Your task to perform on an android device: Clear the shopping cart on target.com. Add bose soundlink mini to the cart on target.com Image 0: 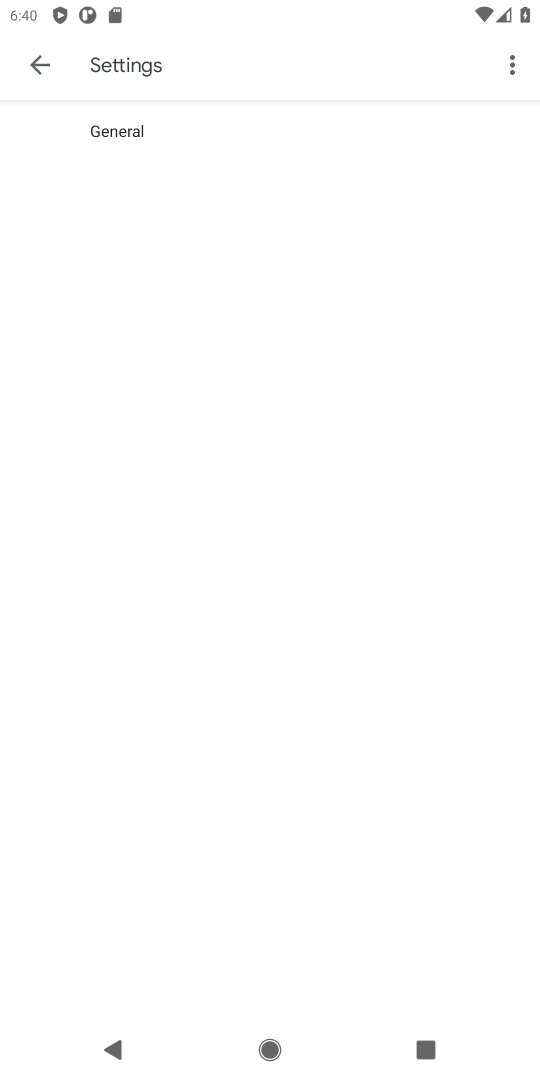
Step 0: press home button
Your task to perform on an android device: Clear the shopping cart on target.com. Add bose soundlink mini to the cart on target.com Image 1: 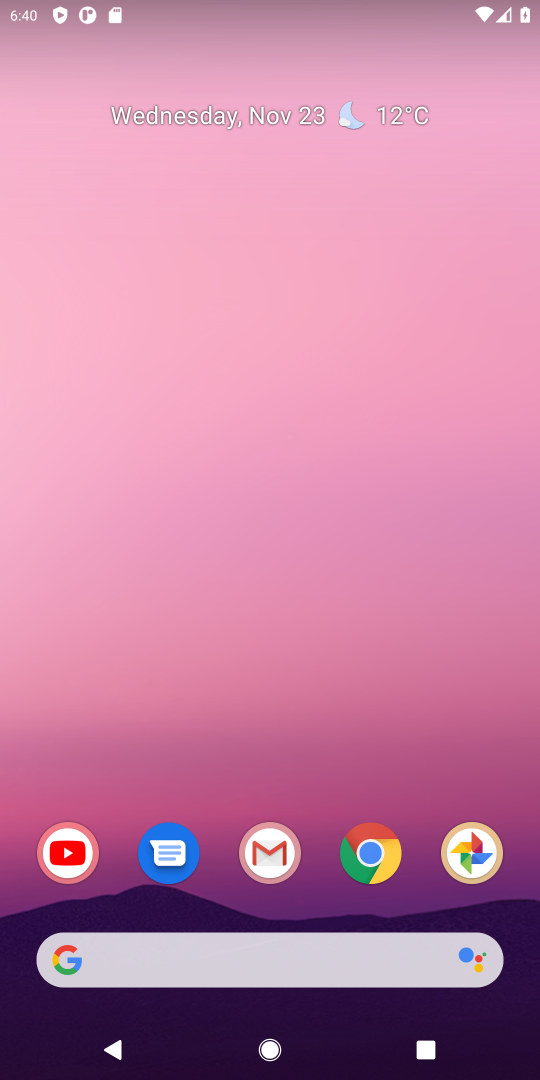
Step 1: click (366, 869)
Your task to perform on an android device: Clear the shopping cart on target.com. Add bose soundlink mini to the cart on target.com Image 2: 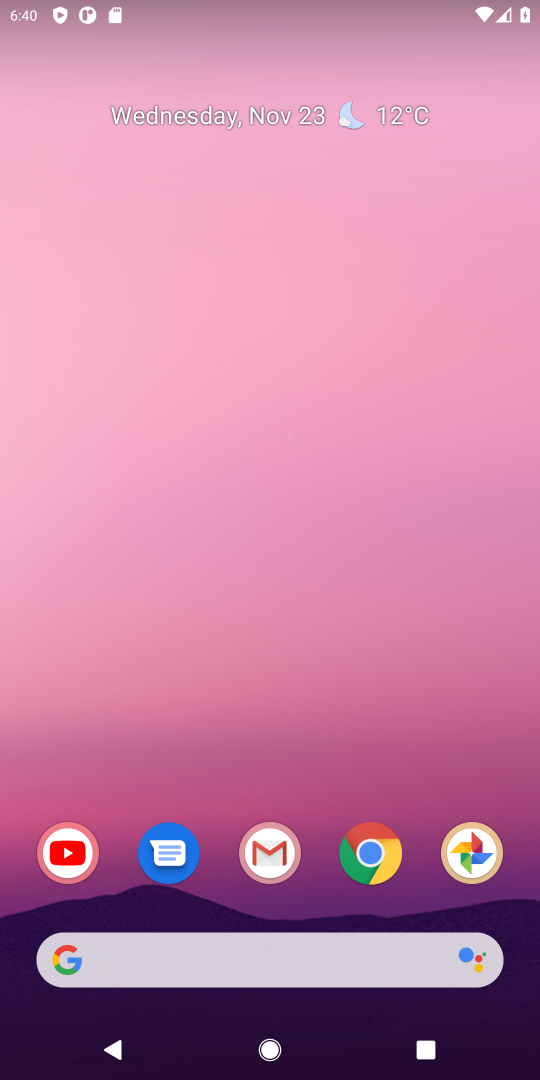
Step 2: click (366, 863)
Your task to perform on an android device: Clear the shopping cart on target.com. Add bose soundlink mini to the cart on target.com Image 3: 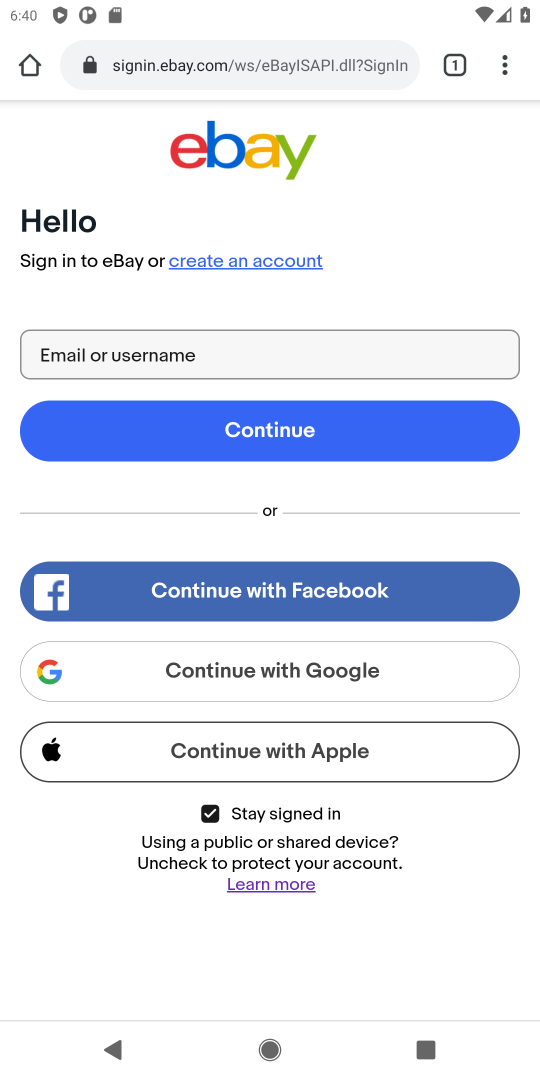
Step 3: click (150, 66)
Your task to perform on an android device: Clear the shopping cart on target.com. Add bose soundlink mini to the cart on target.com Image 4: 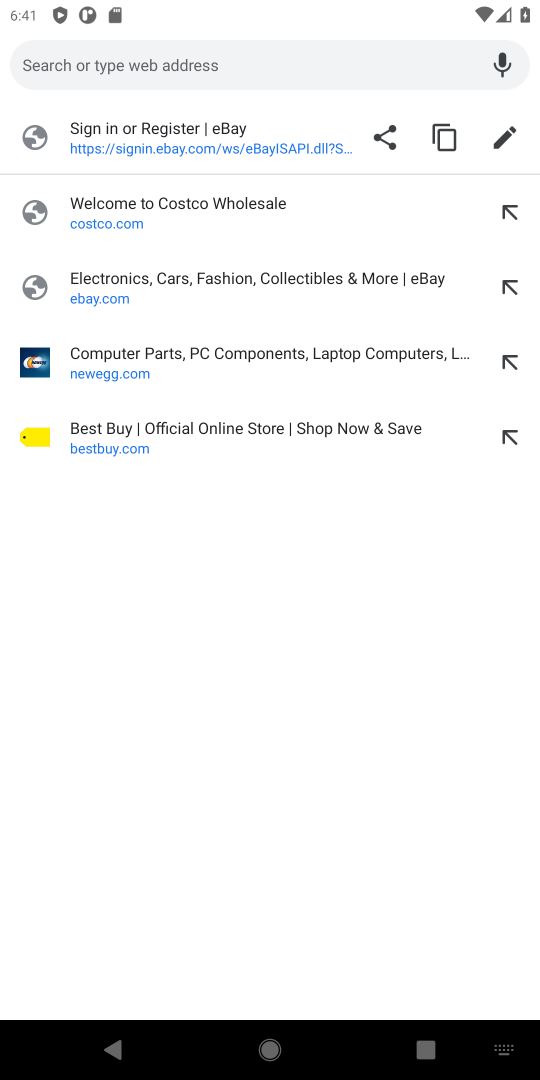
Step 4: type "target.com"
Your task to perform on an android device: Clear the shopping cart on target.com. Add bose soundlink mini to the cart on target.com Image 5: 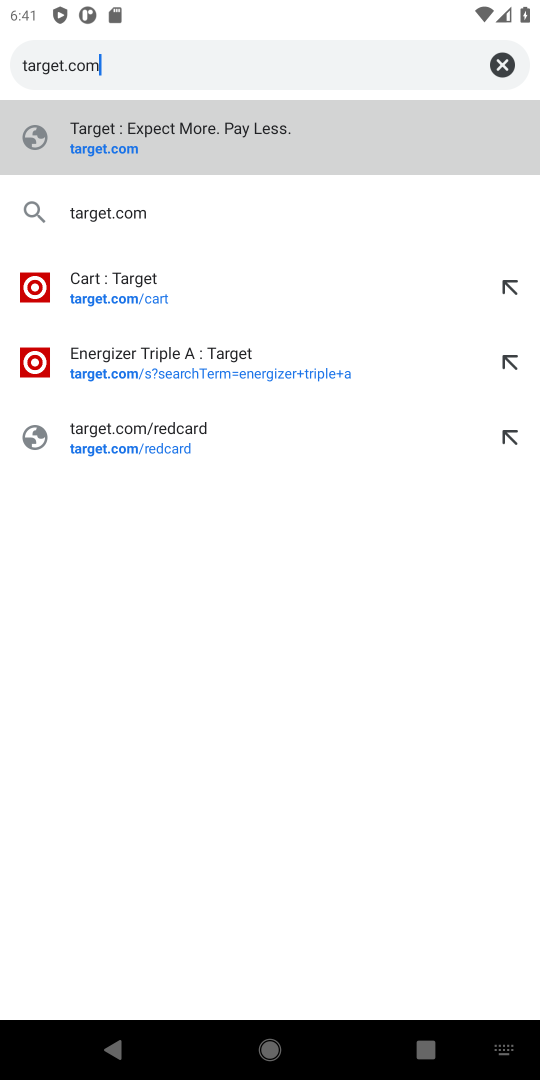
Step 5: click (81, 150)
Your task to perform on an android device: Clear the shopping cart on target.com. Add bose soundlink mini to the cart on target.com Image 6: 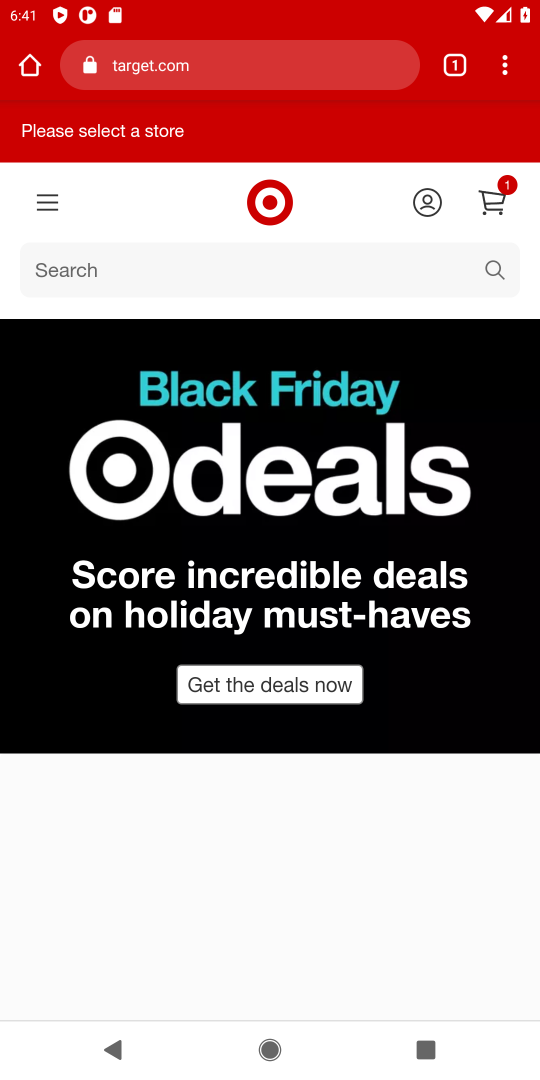
Step 6: click (500, 205)
Your task to perform on an android device: Clear the shopping cart on target.com. Add bose soundlink mini to the cart on target.com Image 7: 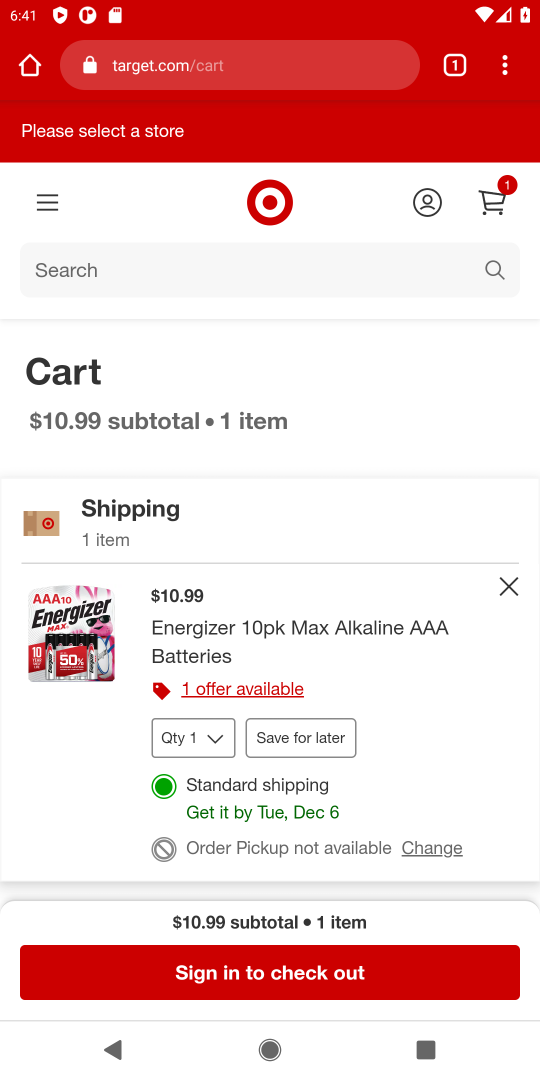
Step 7: click (511, 598)
Your task to perform on an android device: Clear the shopping cart on target.com. Add bose soundlink mini to the cart on target.com Image 8: 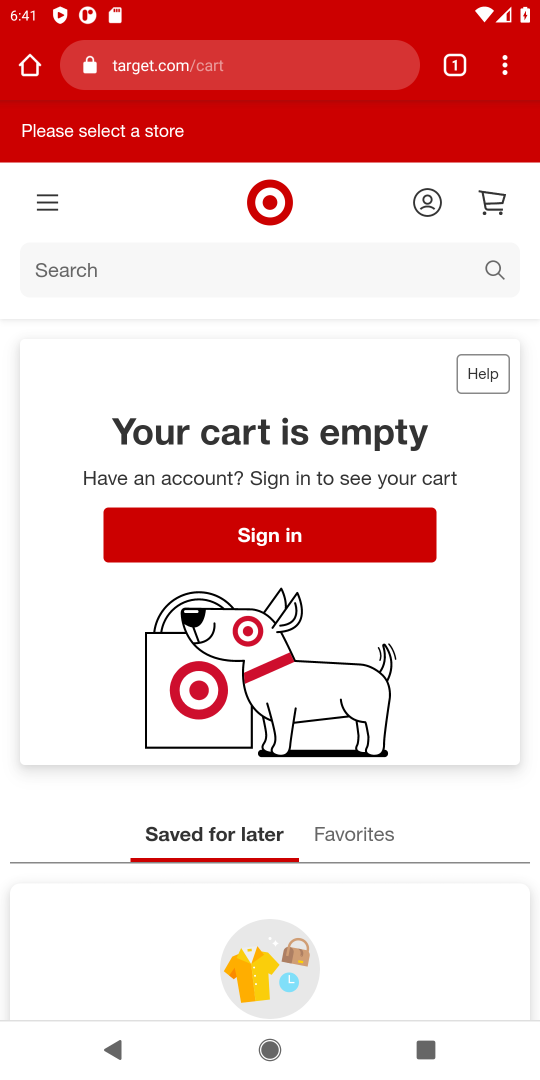
Step 8: click (485, 266)
Your task to perform on an android device: Clear the shopping cart on target.com. Add bose soundlink mini to the cart on target.com Image 9: 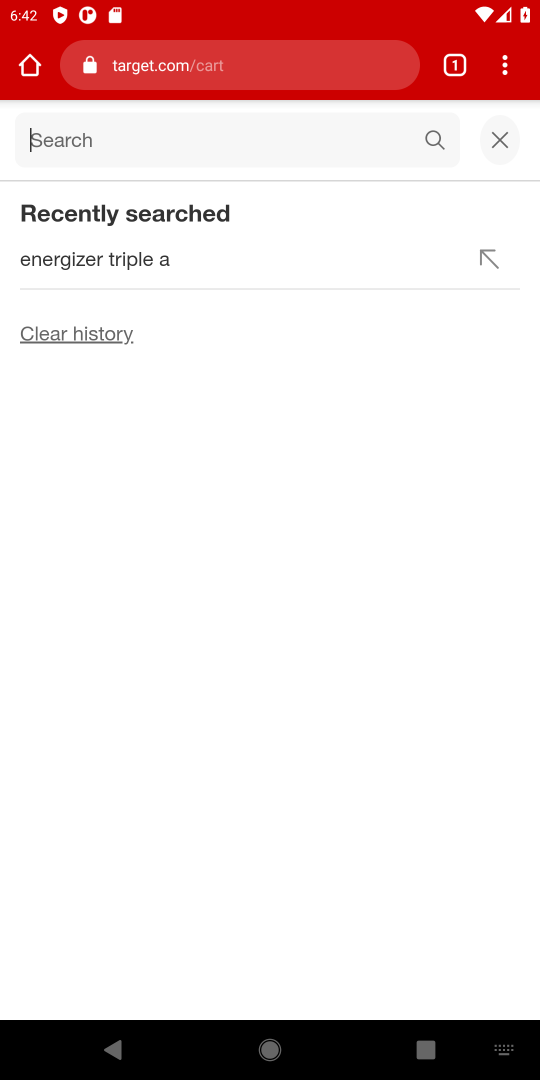
Step 9: type "bose soundlink mini"
Your task to perform on an android device: Clear the shopping cart on target.com. Add bose soundlink mini to the cart on target.com Image 10: 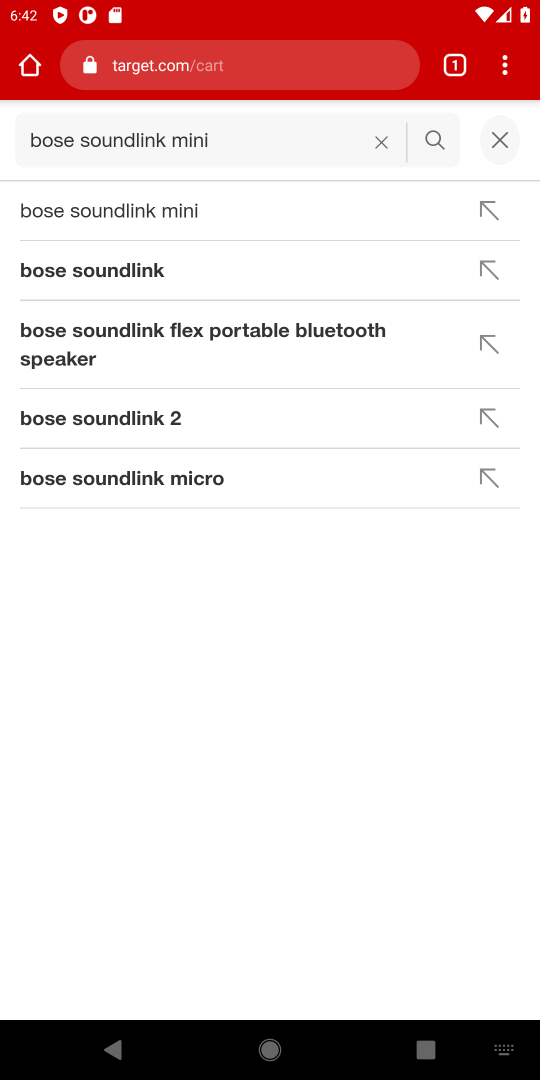
Step 10: click (91, 216)
Your task to perform on an android device: Clear the shopping cart on target.com. Add bose soundlink mini to the cart on target.com Image 11: 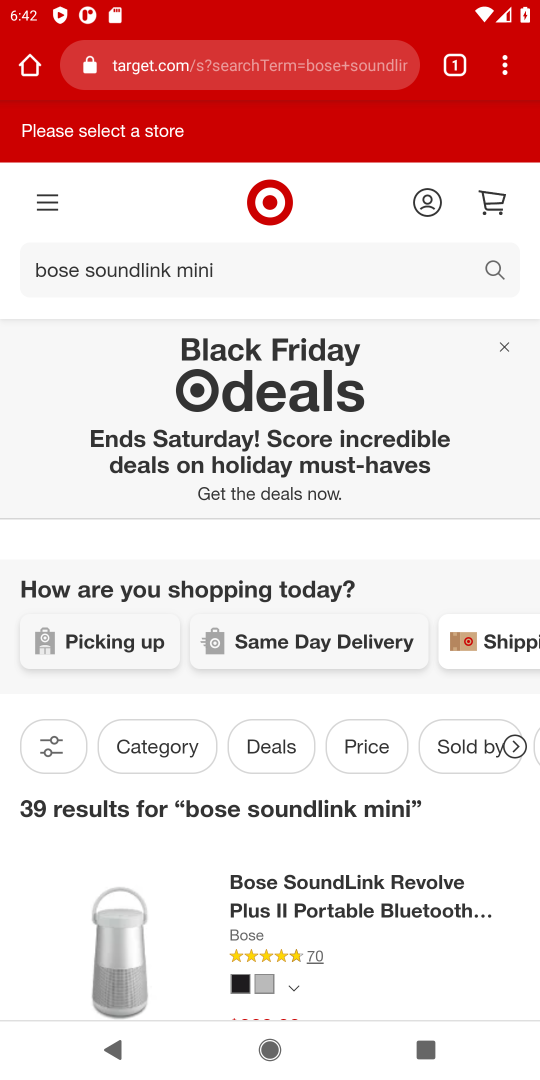
Step 11: task complete